Your task to perform on an android device: turn off smart reply in the gmail app Image 0: 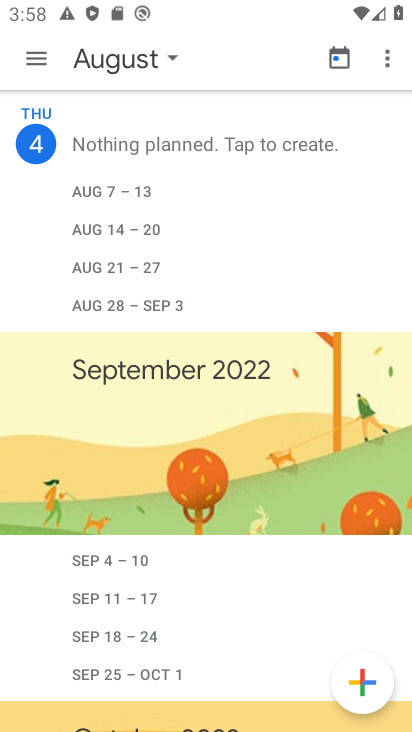
Step 0: press home button
Your task to perform on an android device: turn off smart reply in the gmail app Image 1: 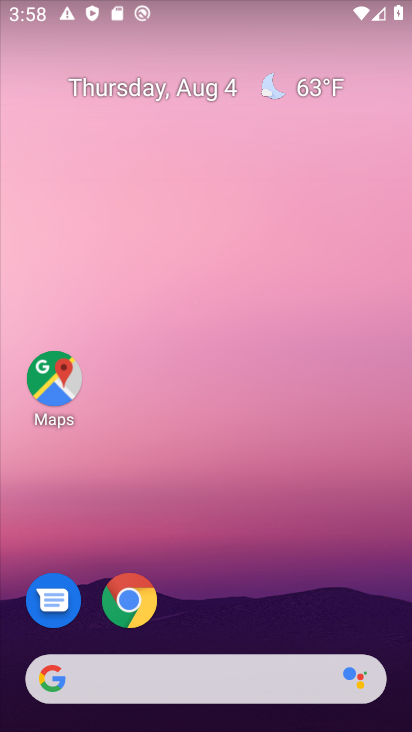
Step 1: drag from (296, 598) to (323, 75)
Your task to perform on an android device: turn off smart reply in the gmail app Image 2: 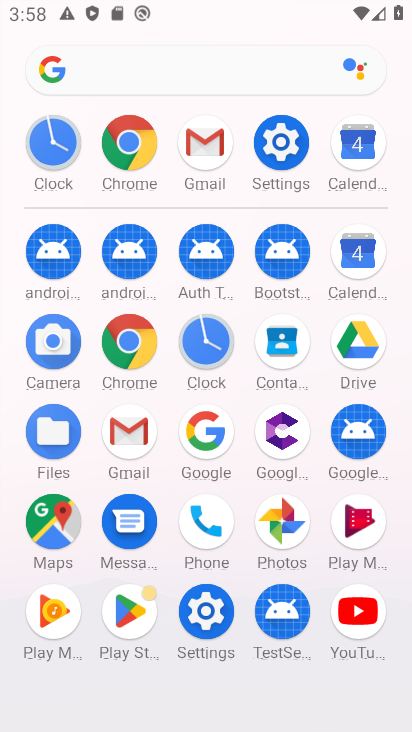
Step 2: click (204, 140)
Your task to perform on an android device: turn off smart reply in the gmail app Image 3: 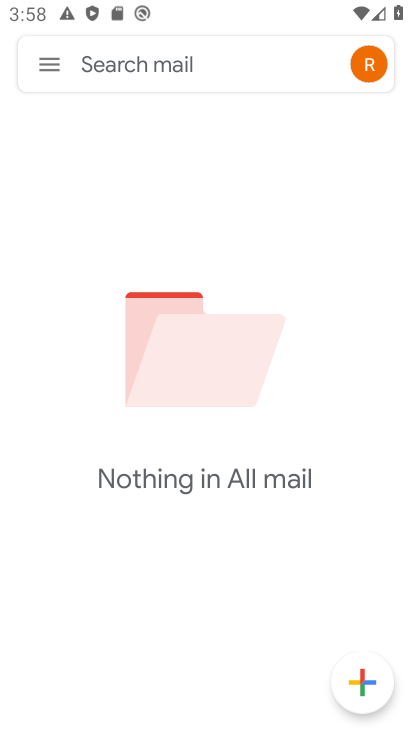
Step 3: click (44, 55)
Your task to perform on an android device: turn off smart reply in the gmail app Image 4: 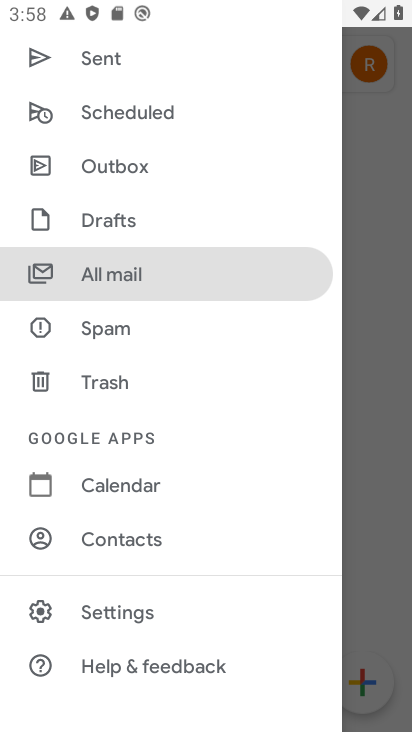
Step 4: click (160, 605)
Your task to perform on an android device: turn off smart reply in the gmail app Image 5: 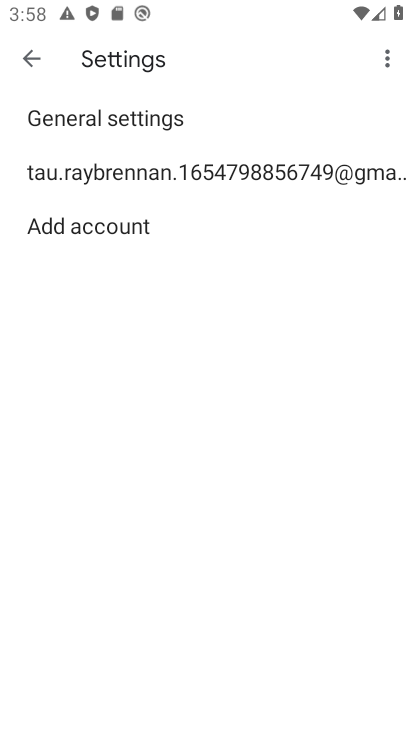
Step 5: click (250, 159)
Your task to perform on an android device: turn off smart reply in the gmail app Image 6: 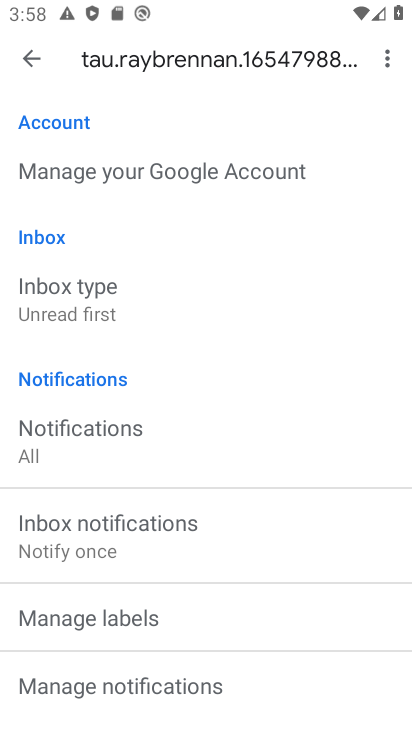
Step 6: drag from (171, 548) to (263, 193)
Your task to perform on an android device: turn off smart reply in the gmail app Image 7: 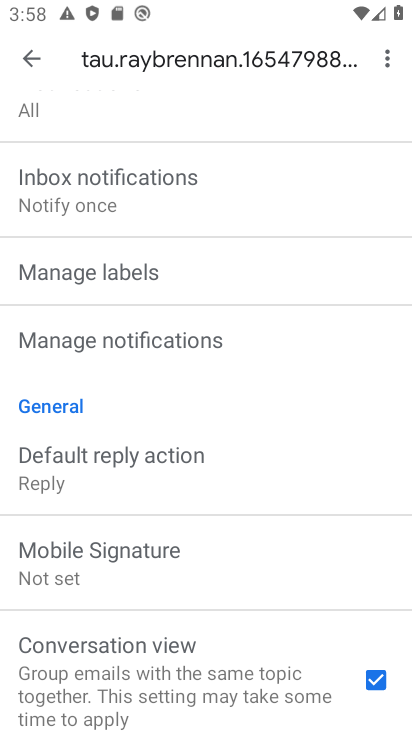
Step 7: drag from (193, 184) to (219, 476)
Your task to perform on an android device: turn off smart reply in the gmail app Image 8: 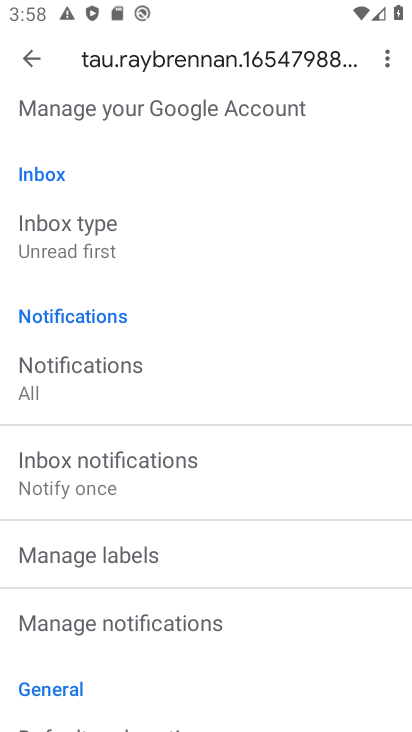
Step 8: drag from (213, 225) to (213, 466)
Your task to perform on an android device: turn off smart reply in the gmail app Image 9: 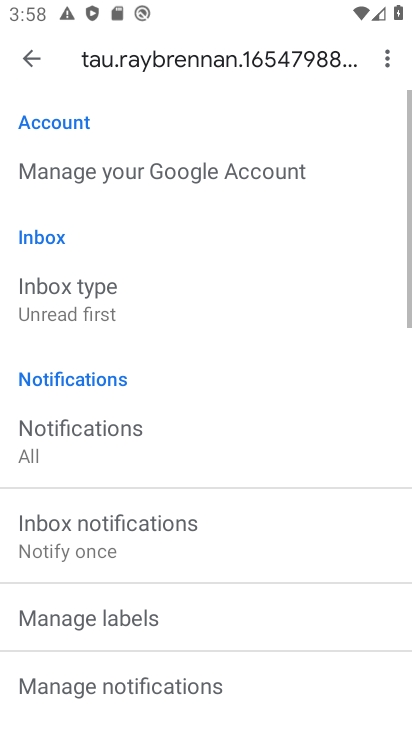
Step 9: drag from (196, 495) to (245, 147)
Your task to perform on an android device: turn off smart reply in the gmail app Image 10: 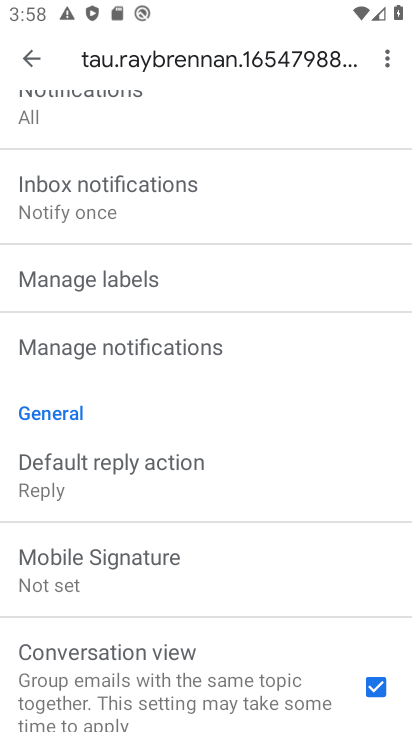
Step 10: drag from (202, 530) to (256, 150)
Your task to perform on an android device: turn off smart reply in the gmail app Image 11: 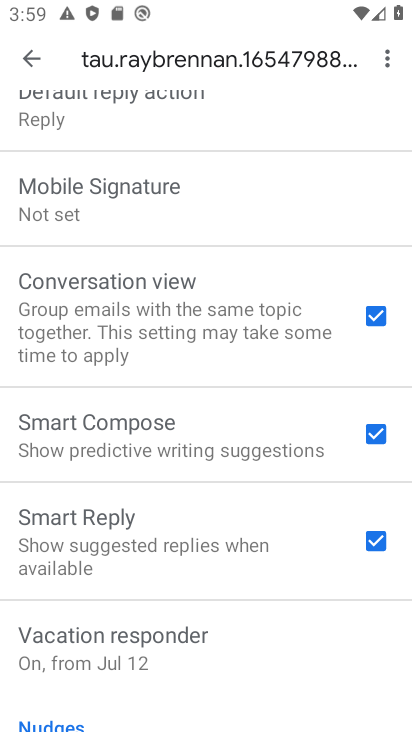
Step 11: click (371, 544)
Your task to perform on an android device: turn off smart reply in the gmail app Image 12: 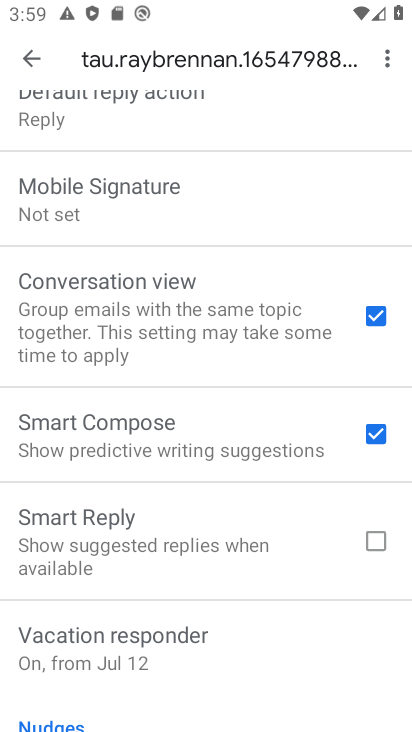
Step 12: task complete